Your task to perform on an android device: set an alarm Image 0: 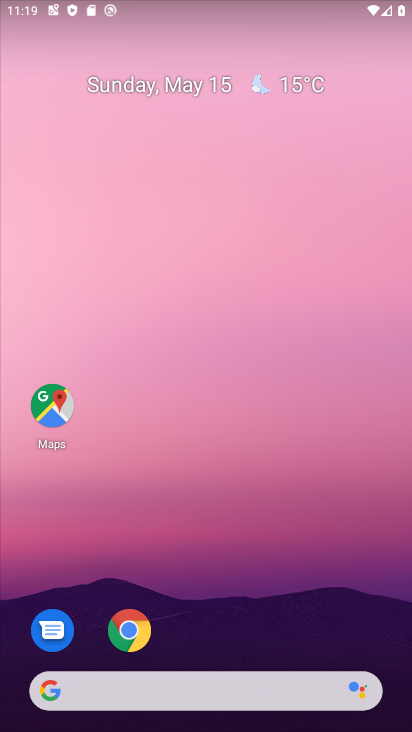
Step 0: drag from (202, 701) to (194, 91)
Your task to perform on an android device: set an alarm Image 1: 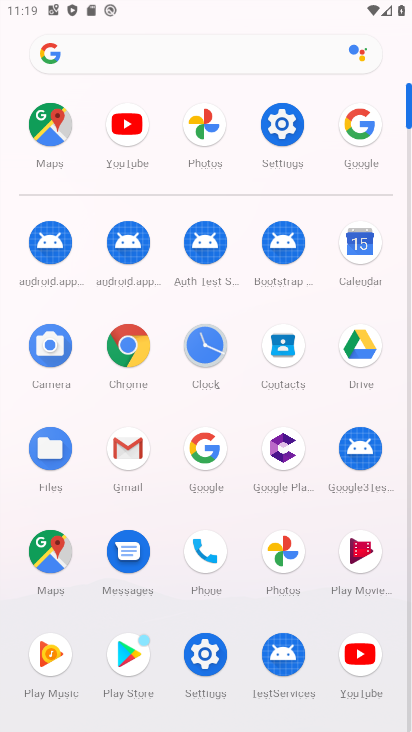
Step 1: click (201, 347)
Your task to perform on an android device: set an alarm Image 2: 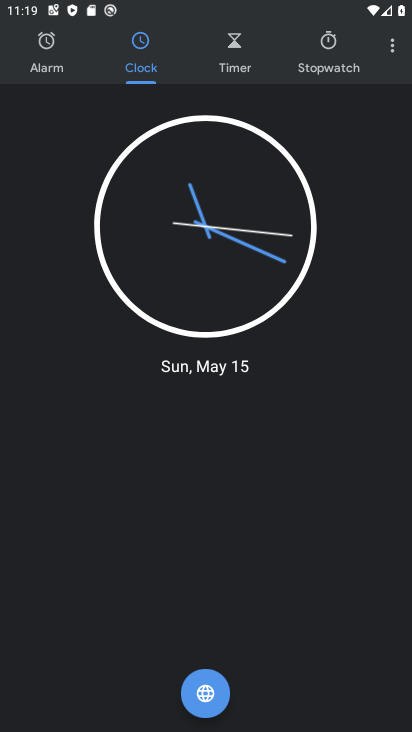
Step 2: click (49, 46)
Your task to perform on an android device: set an alarm Image 3: 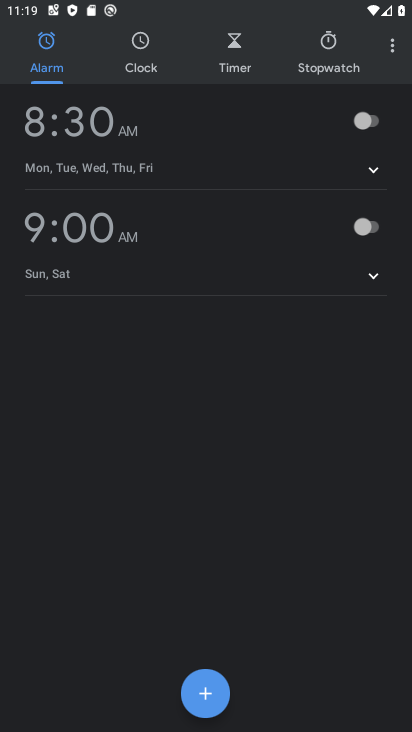
Step 3: click (283, 620)
Your task to perform on an android device: set an alarm Image 4: 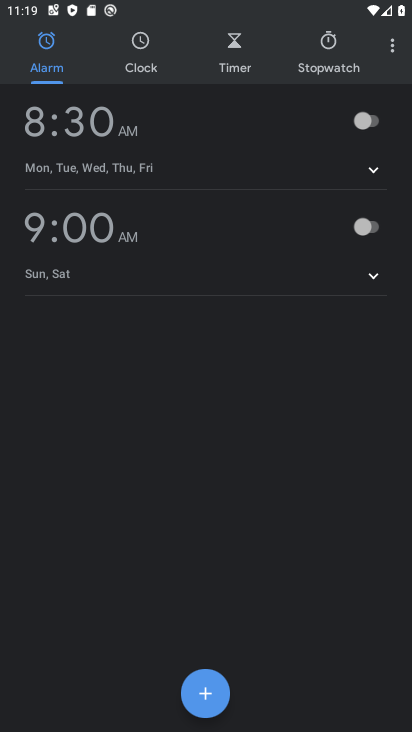
Step 4: click (209, 688)
Your task to perform on an android device: set an alarm Image 5: 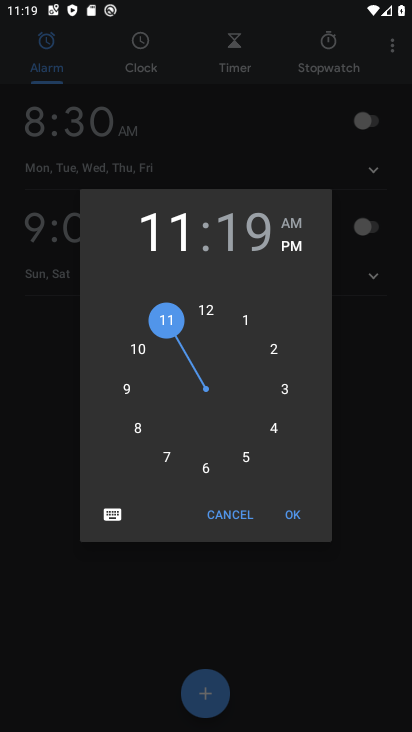
Step 5: click (208, 458)
Your task to perform on an android device: set an alarm Image 6: 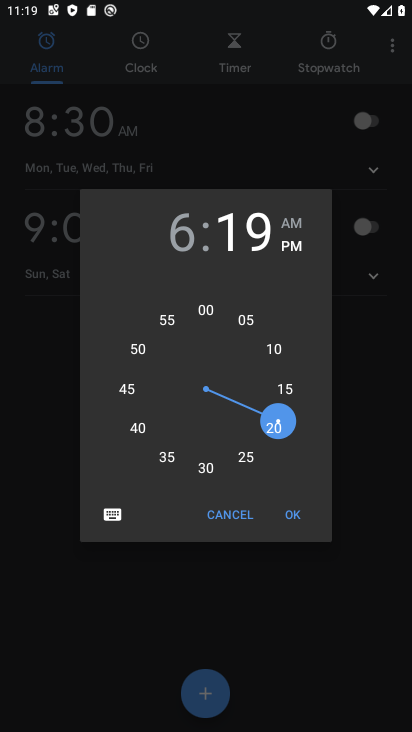
Step 6: click (291, 518)
Your task to perform on an android device: set an alarm Image 7: 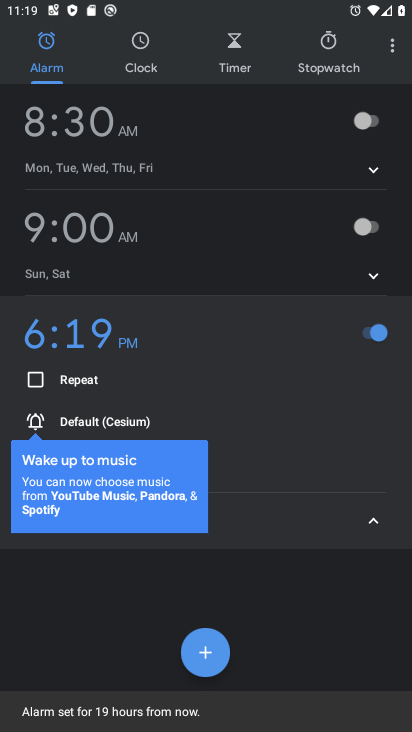
Step 7: task complete